Your task to perform on an android device: find which apps use the phone's location Image 0: 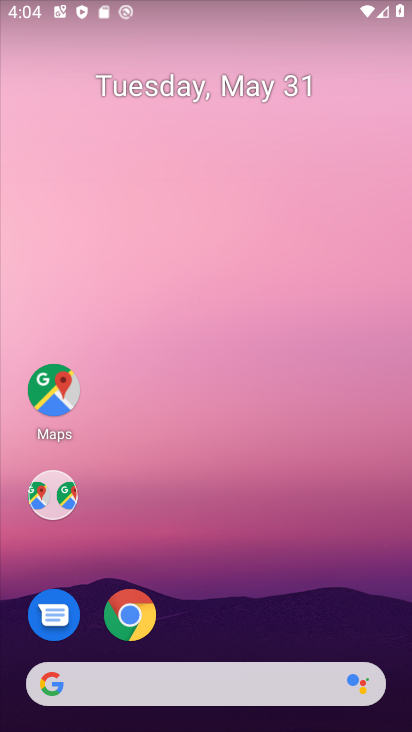
Step 0: click (236, 149)
Your task to perform on an android device: find which apps use the phone's location Image 1: 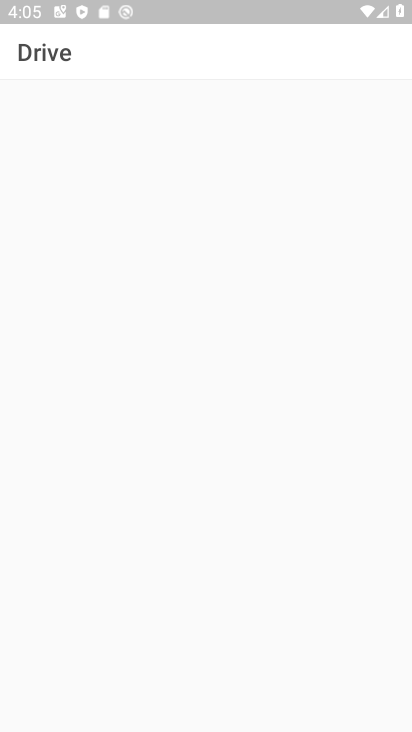
Step 1: press back button
Your task to perform on an android device: find which apps use the phone's location Image 2: 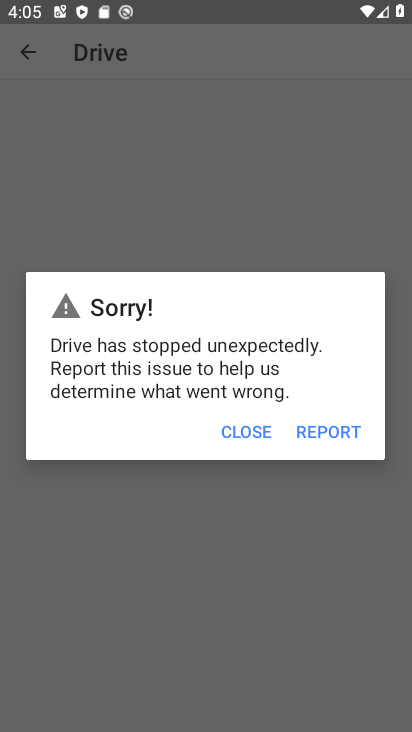
Step 2: click (253, 430)
Your task to perform on an android device: find which apps use the phone's location Image 3: 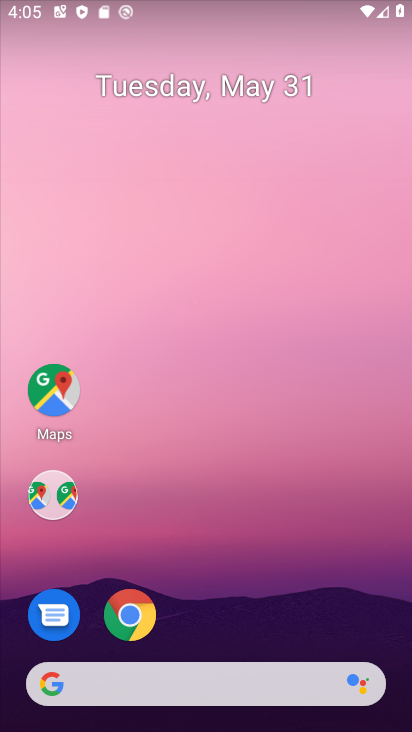
Step 3: drag from (238, 699) to (161, 130)
Your task to perform on an android device: find which apps use the phone's location Image 4: 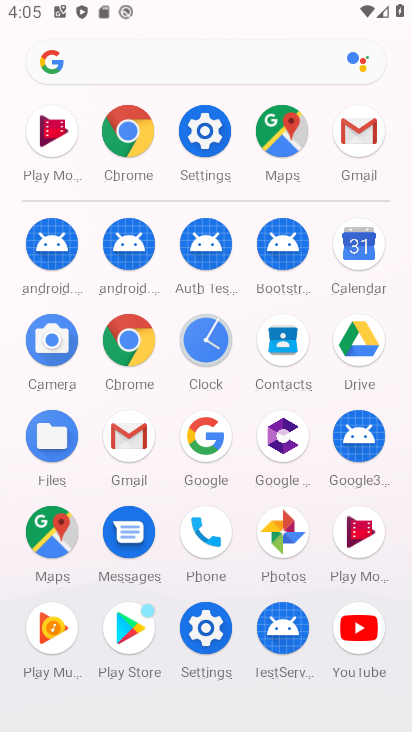
Step 4: click (195, 631)
Your task to perform on an android device: find which apps use the phone's location Image 5: 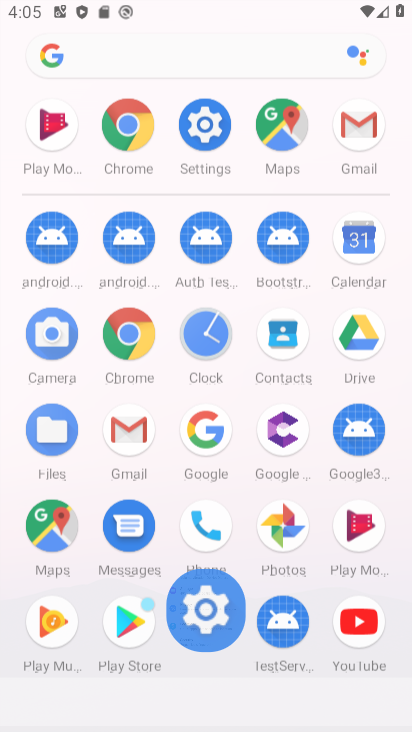
Step 5: click (195, 630)
Your task to perform on an android device: find which apps use the phone's location Image 6: 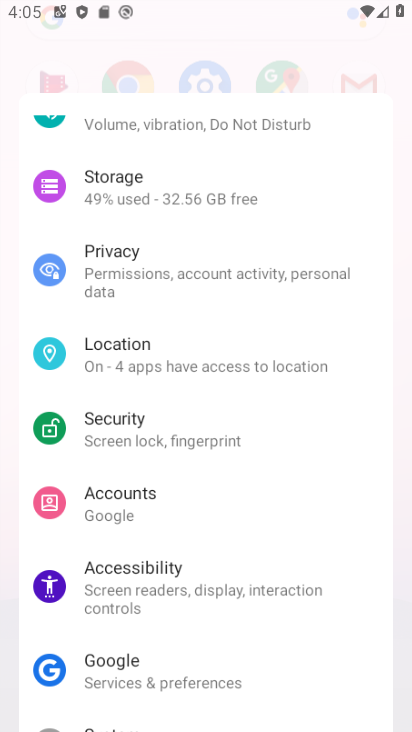
Step 6: click (195, 629)
Your task to perform on an android device: find which apps use the phone's location Image 7: 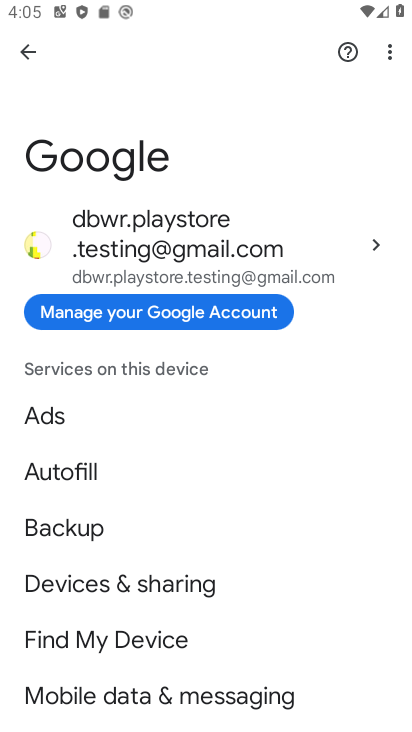
Step 7: press back button
Your task to perform on an android device: find which apps use the phone's location Image 8: 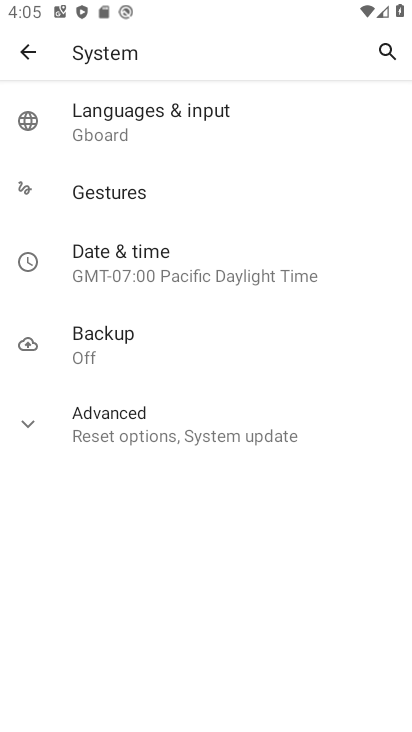
Step 8: click (36, 52)
Your task to perform on an android device: find which apps use the phone's location Image 9: 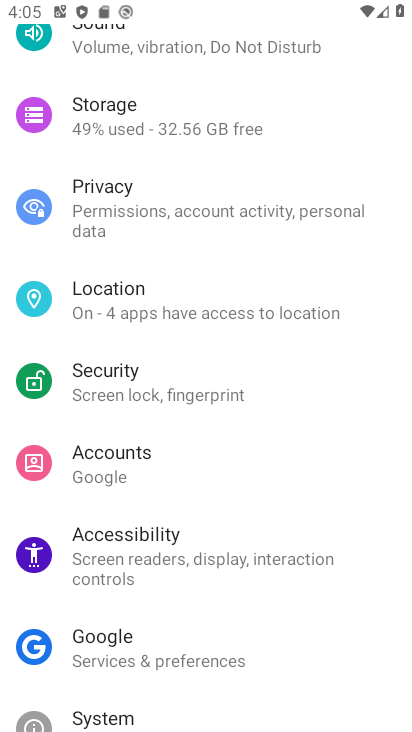
Step 9: click (112, 306)
Your task to perform on an android device: find which apps use the phone's location Image 10: 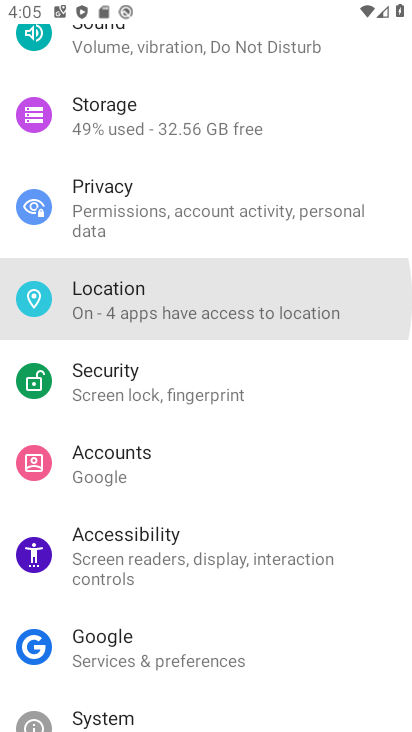
Step 10: click (112, 306)
Your task to perform on an android device: find which apps use the phone's location Image 11: 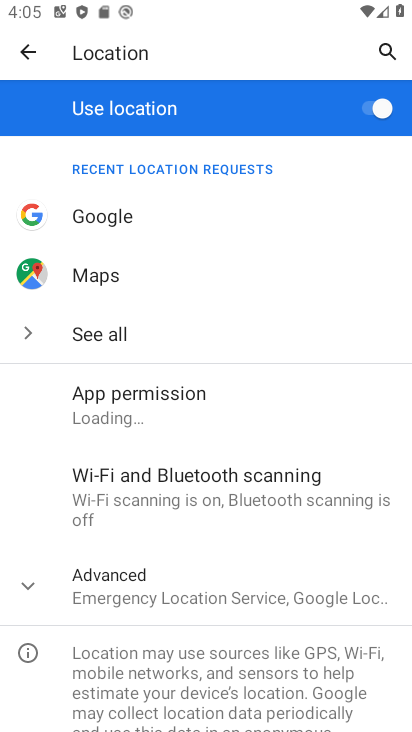
Step 11: click (111, 409)
Your task to perform on an android device: find which apps use the phone's location Image 12: 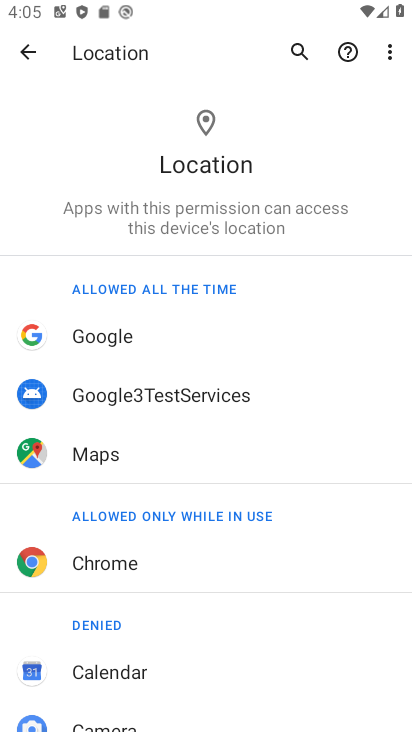
Step 12: task complete